Your task to perform on an android device: Clear all items from cart on bestbuy.com. Search for "usb-c" on bestbuy.com, select the first entry, and add it to the cart. Image 0: 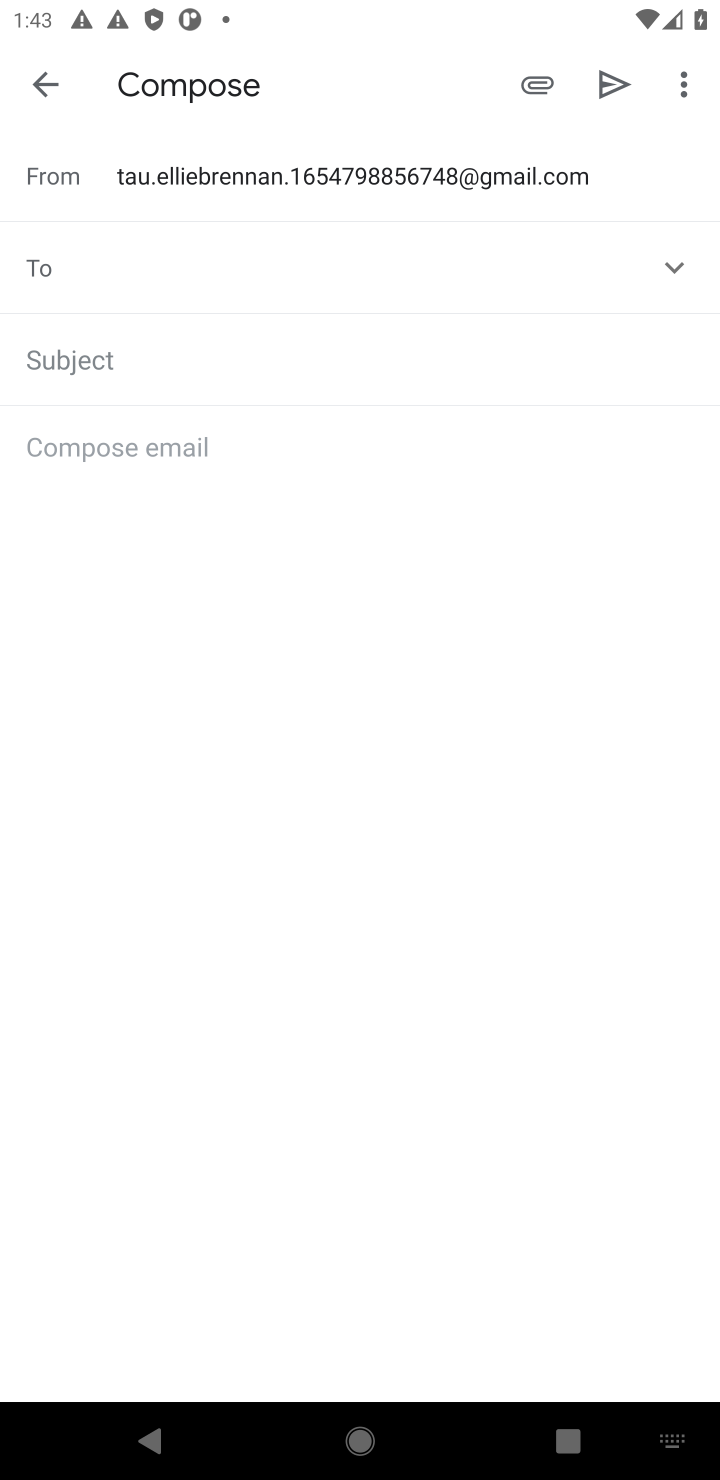
Step 0: press home button
Your task to perform on an android device: Clear all items from cart on bestbuy.com. Search for "usb-c" on bestbuy.com, select the first entry, and add it to the cart. Image 1: 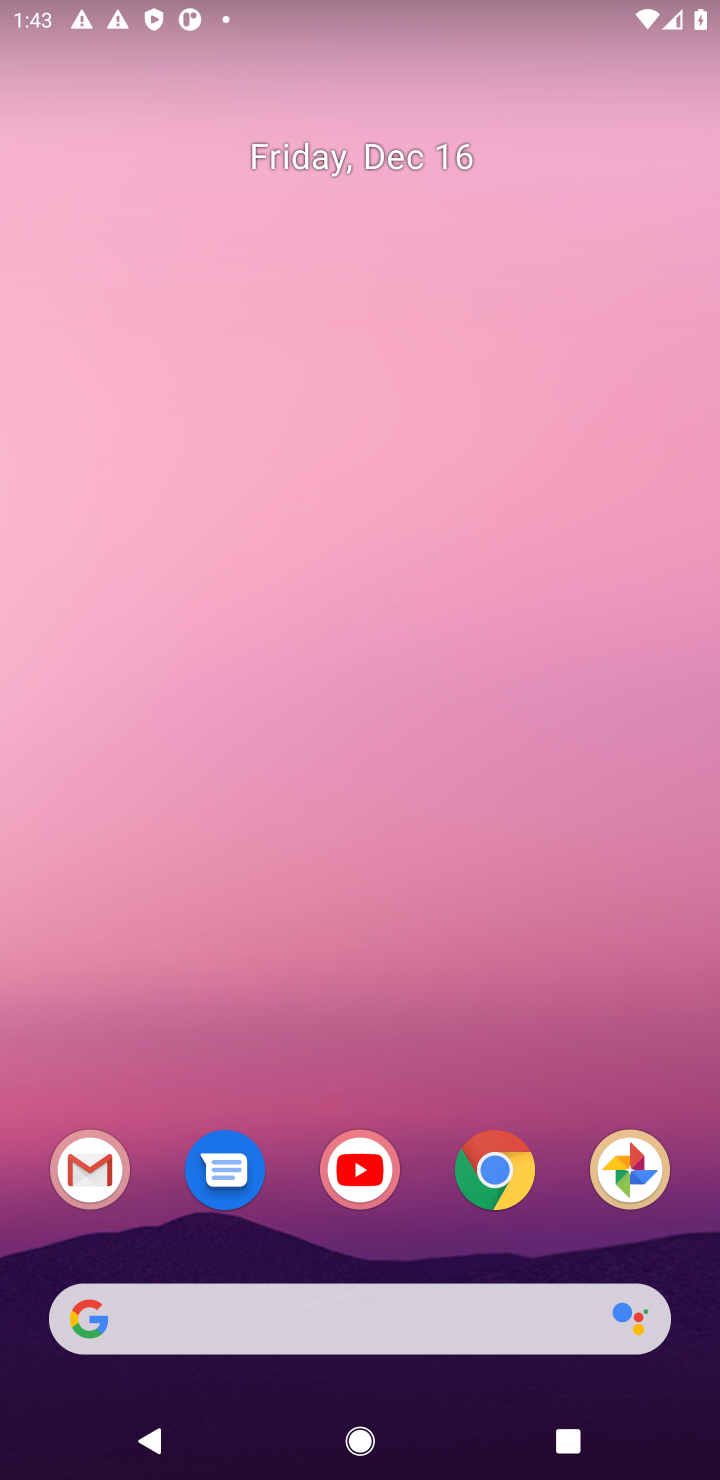
Step 1: click (504, 1185)
Your task to perform on an android device: Clear all items from cart on bestbuy.com. Search for "usb-c" on bestbuy.com, select the first entry, and add it to the cart. Image 2: 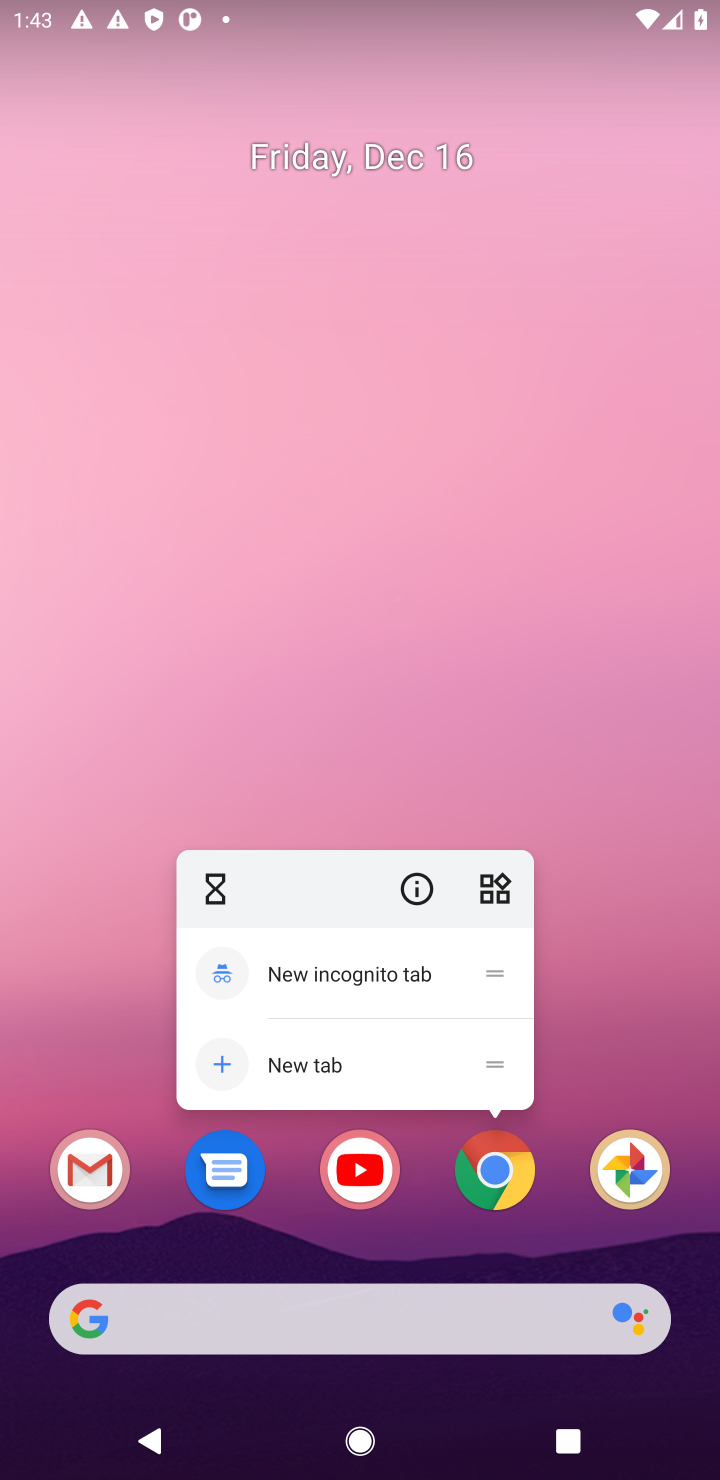
Step 2: click (504, 1185)
Your task to perform on an android device: Clear all items from cart on bestbuy.com. Search for "usb-c" on bestbuy.com, select the first entry, and add it to the cart. Image 3: 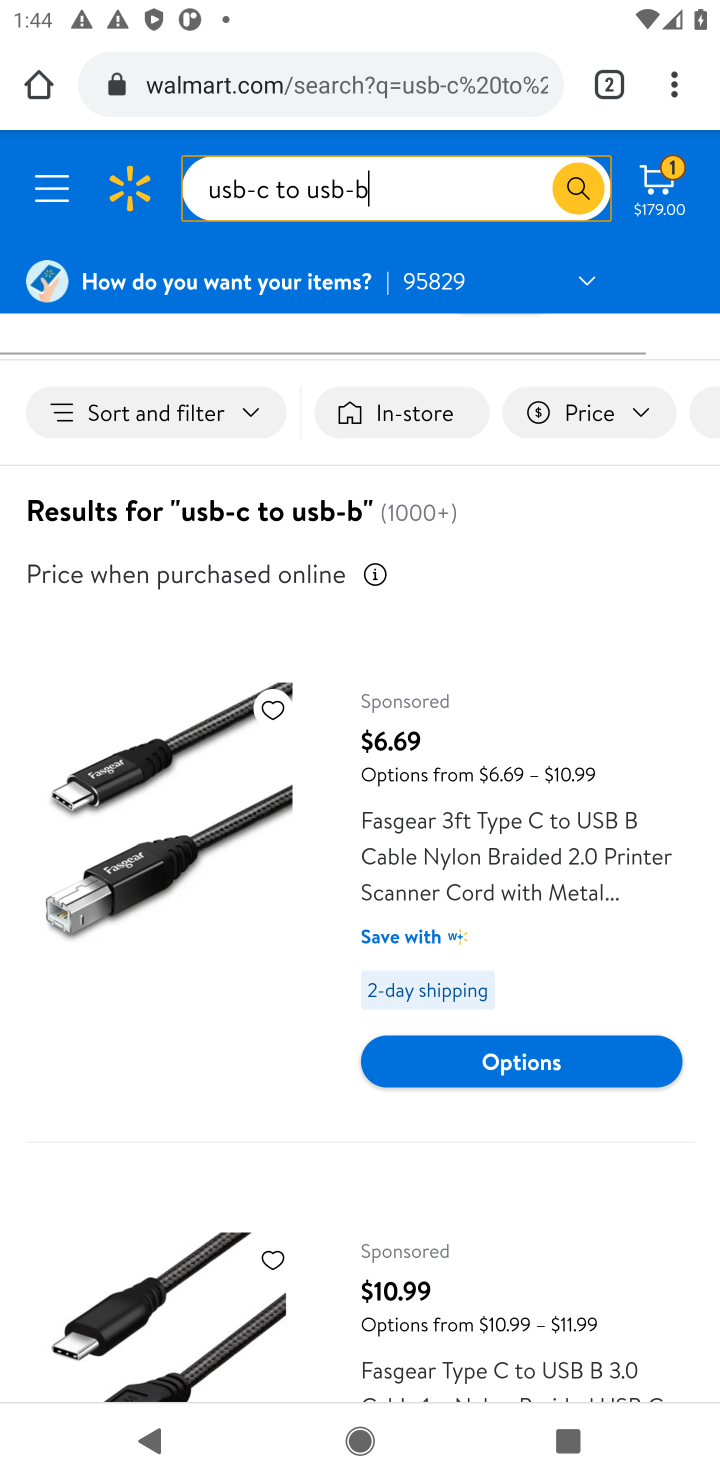
Step 3: click (306, 93)
Your task to perform on an android device: Clear all items from cart on bestbuy.com. Search for "usb-c" on bestbuy.com, select the first entry, and add it to the cart. Image 4: 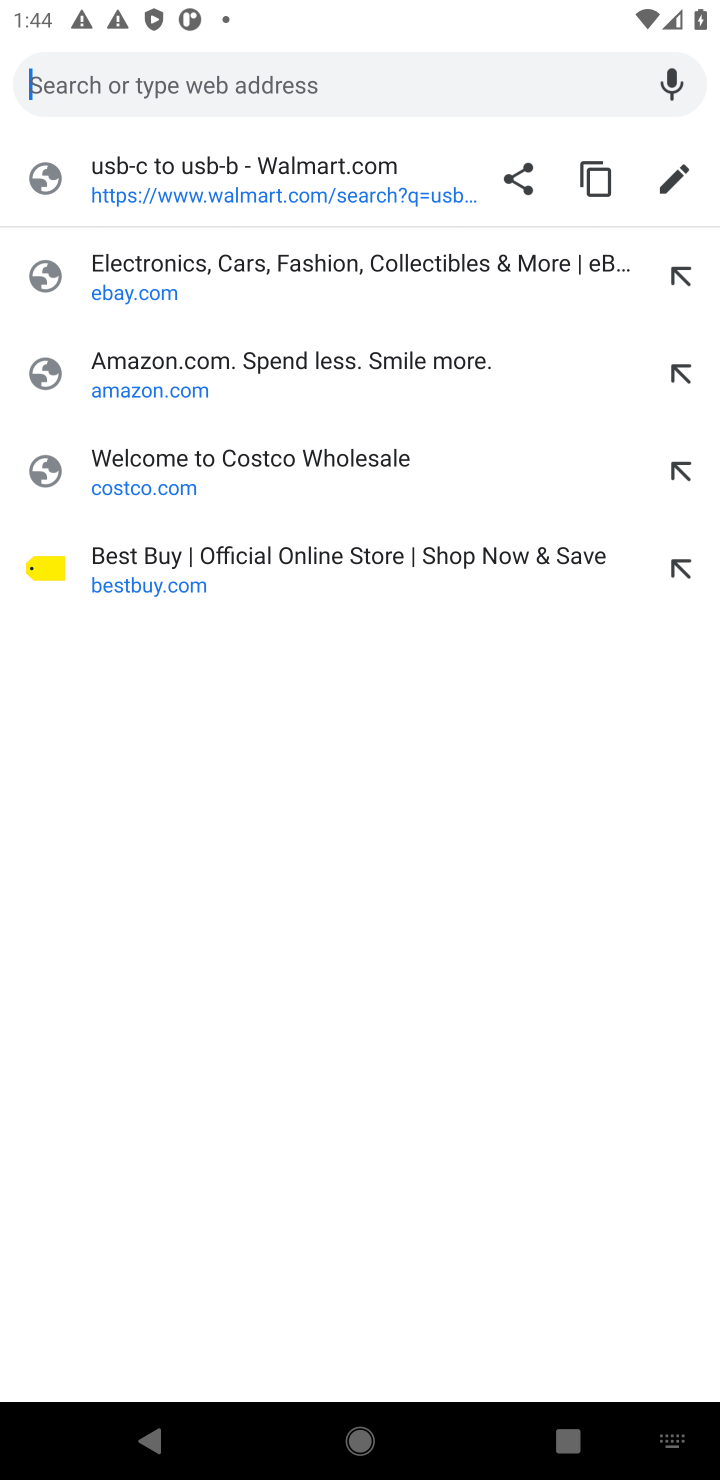
Step 4: click (171, 582)
Your task to perform on an android device: Clear all items from cart on bestbuy.com. Search for "usb-c" on bestbuy.com, select the first entry, and add it to the cart. Image 5: 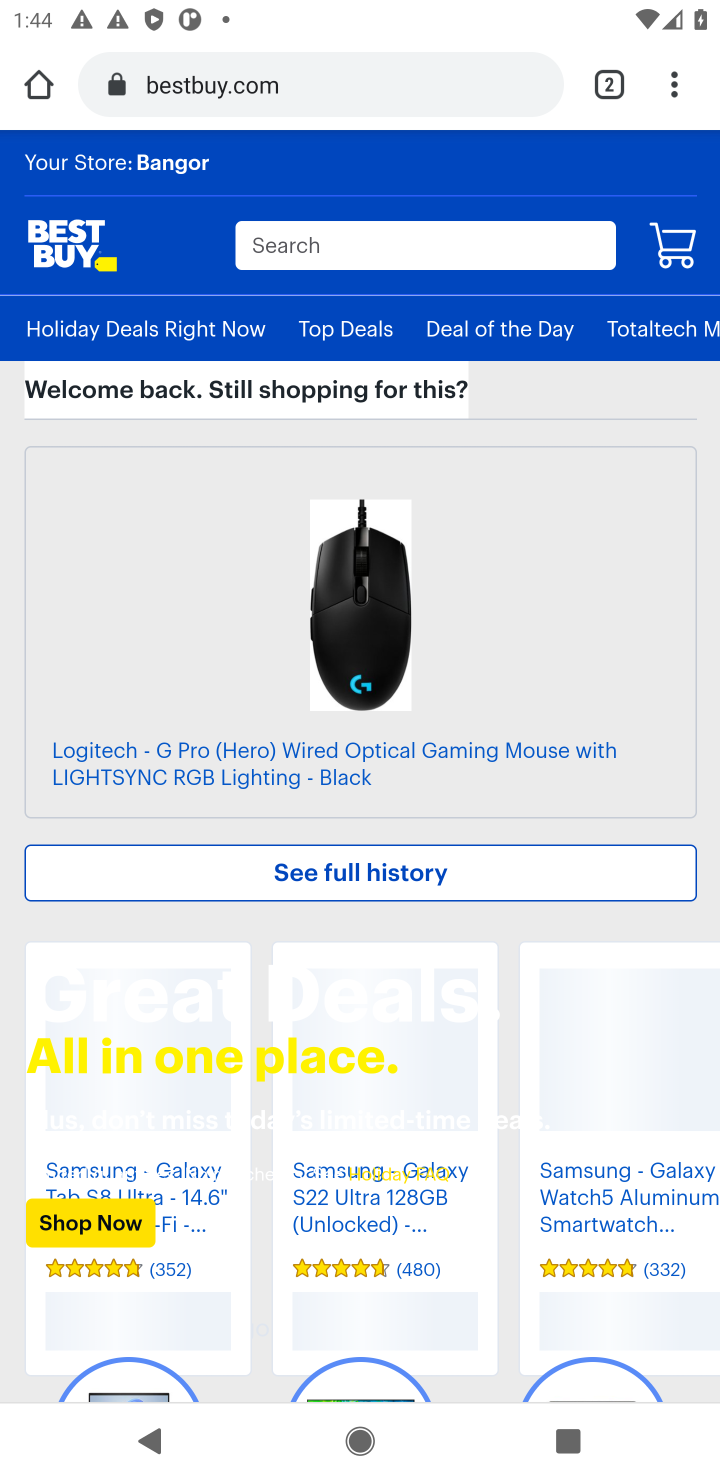
Step 5: click (668, 246)
Your task to perform on an android device: Clear all items from cart on bestbuy.com. Search for "usb-c" on bestbuy.com, select the first entry, and add it to the cart. Image 6: 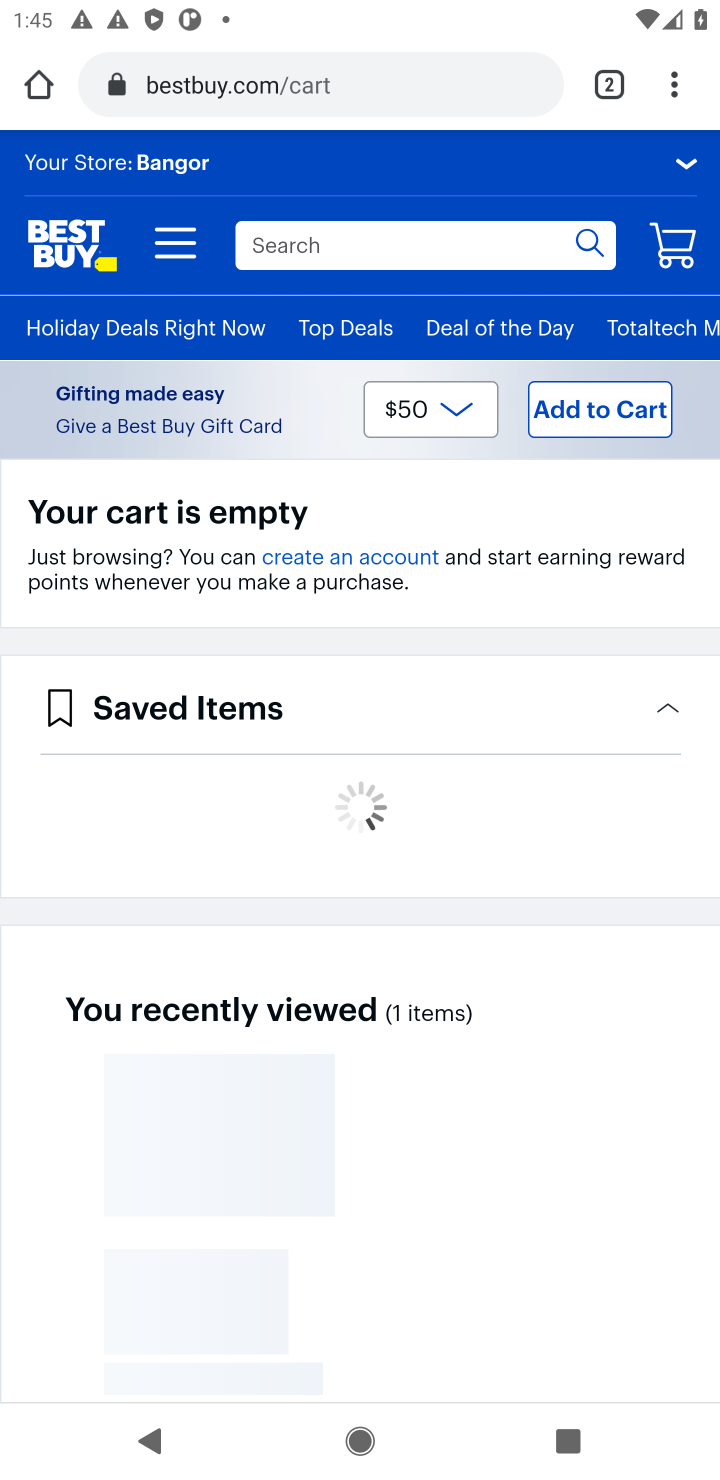
Step 6: click (308, 246)
Your task to perform on an android device: Clear all items from cart on bestbuy.com. Search for "usb-c" on bestbuy.com, select the first entry, and add it to the cart. Image 7: 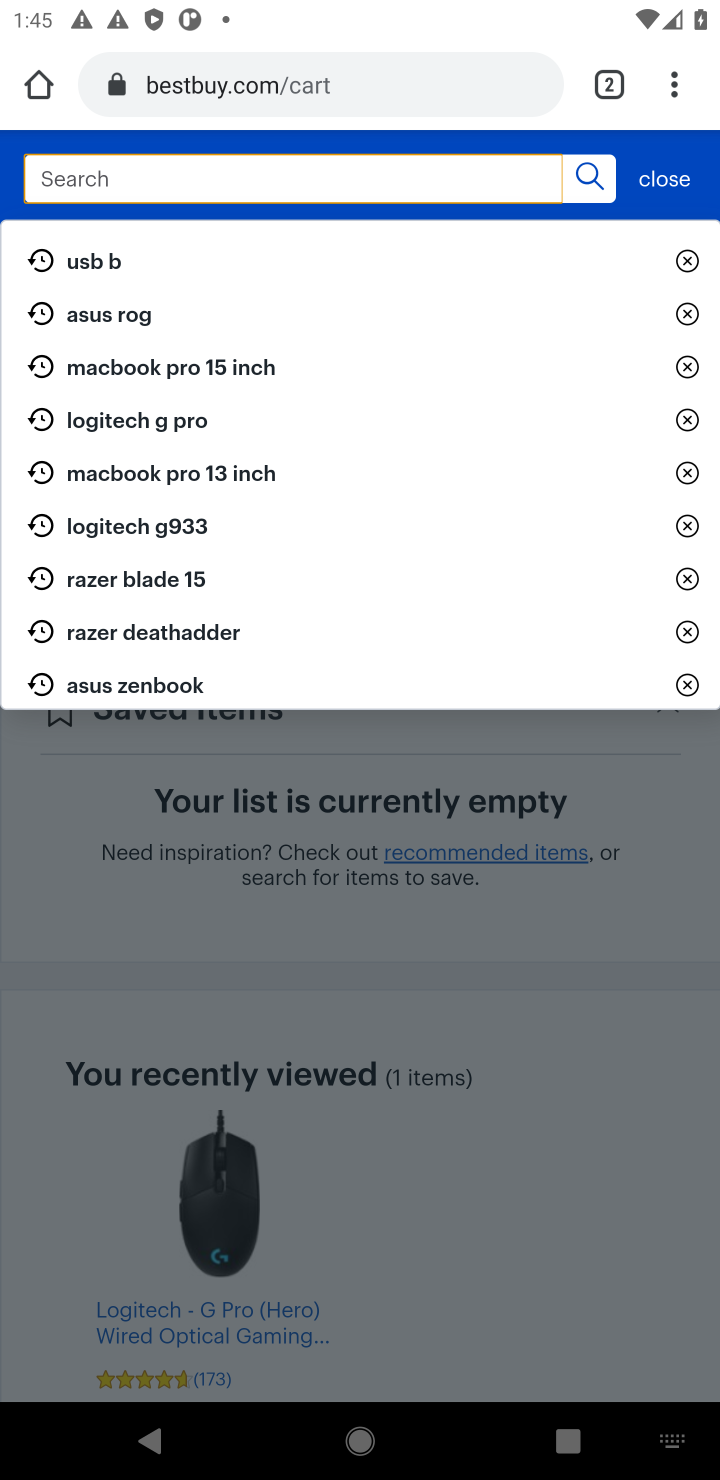
Step 7: type "usb-c"
Your task to perform on an android device: Clear all items from cart on bestbuy.com. Search for "usb-c" on bestbuy.com, select the first entry, and add it to the cart. Image 8: 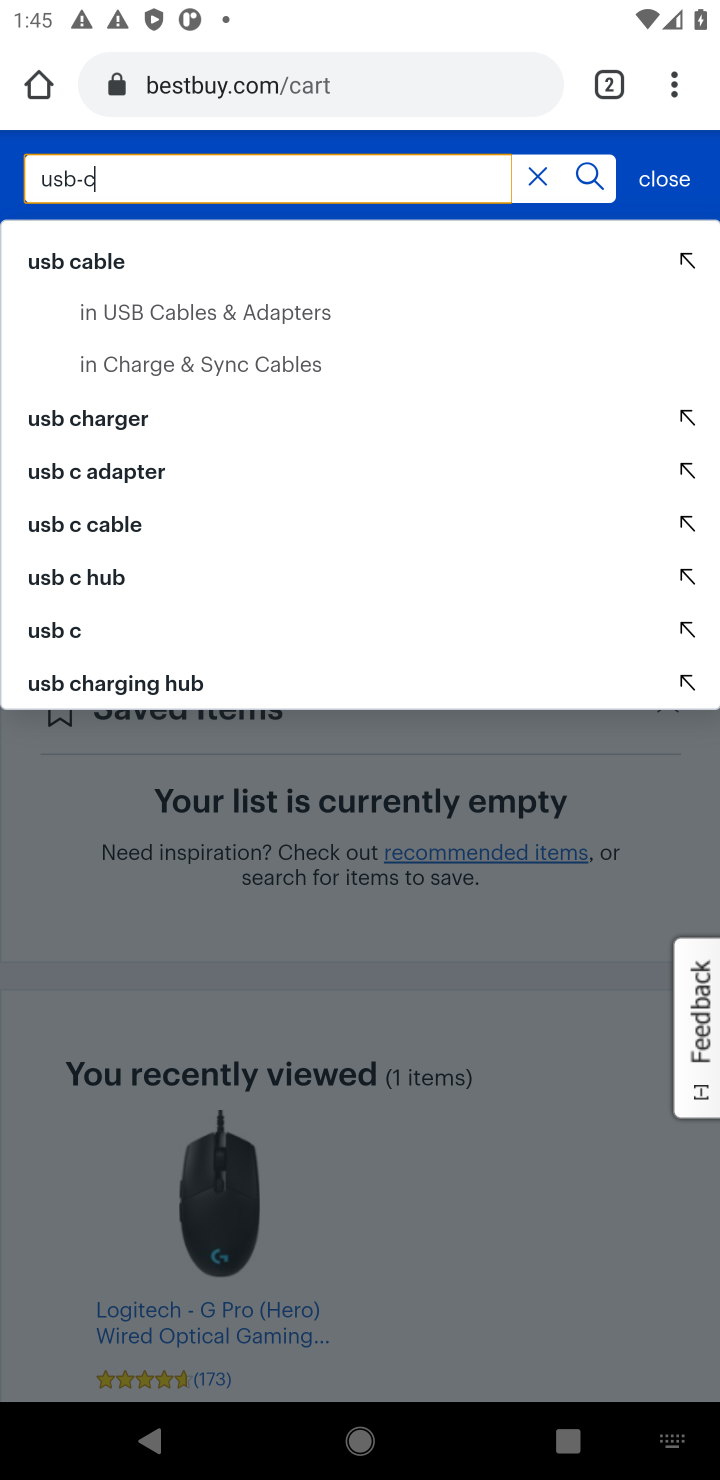
Step 8: click (30, 639)
Your task to perform on an android device: Clear all items from cart on bestbuy.com. Search for "usb-c" on bestbuy.com, select the first entry, and add it to the cart. Image 9: 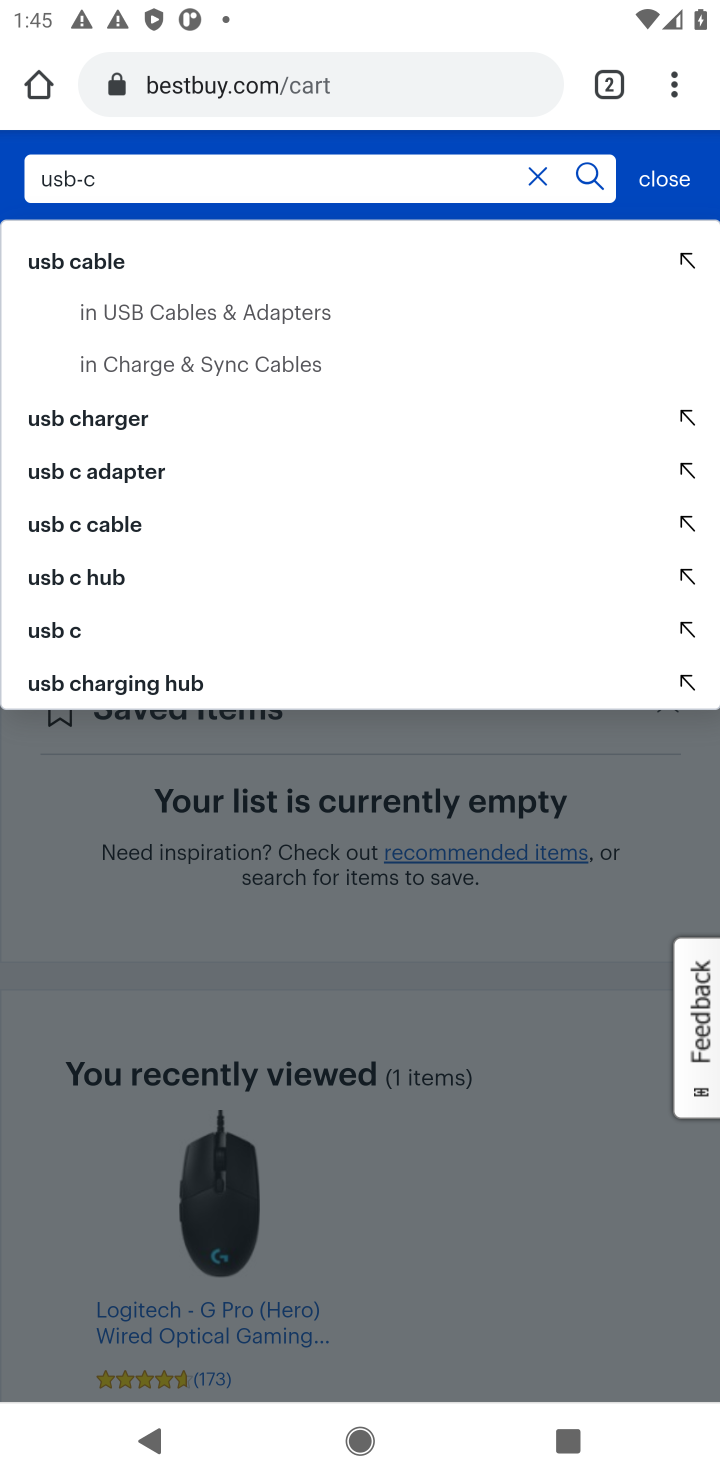
Step 9: click (588, 176)
Your task to perform on an android device: Clear all items from cart on bestbuy.com. Search for "usb-c" on bestbuy.com, select the first entry, and add it to the cart. Image 10: 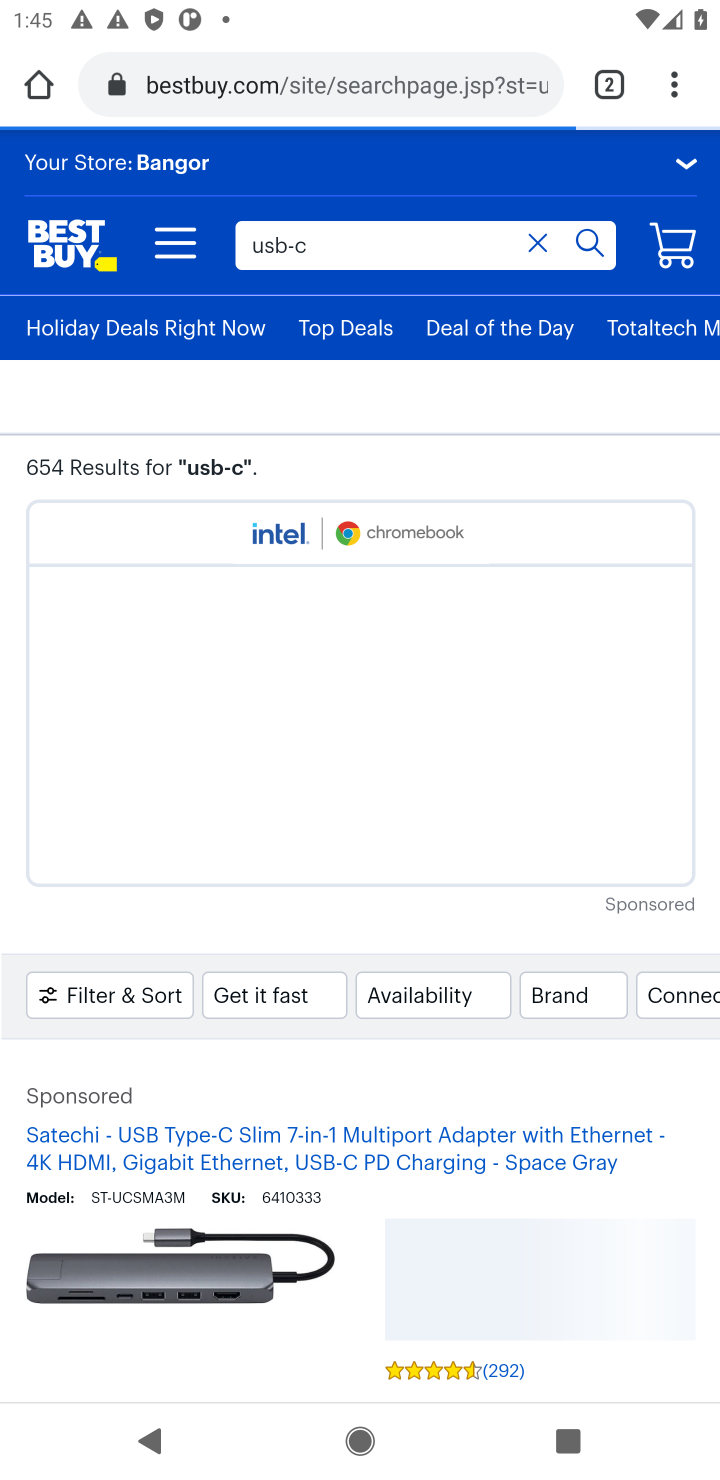
Step 10: drag from (239, 1060) to (285, 615)
Your task to perform on an android device: Clear all items from cart on bestbuy.com. Search for "usb-c" on bestbuy.com, select the first entry, and add it to the cart. Image 11: 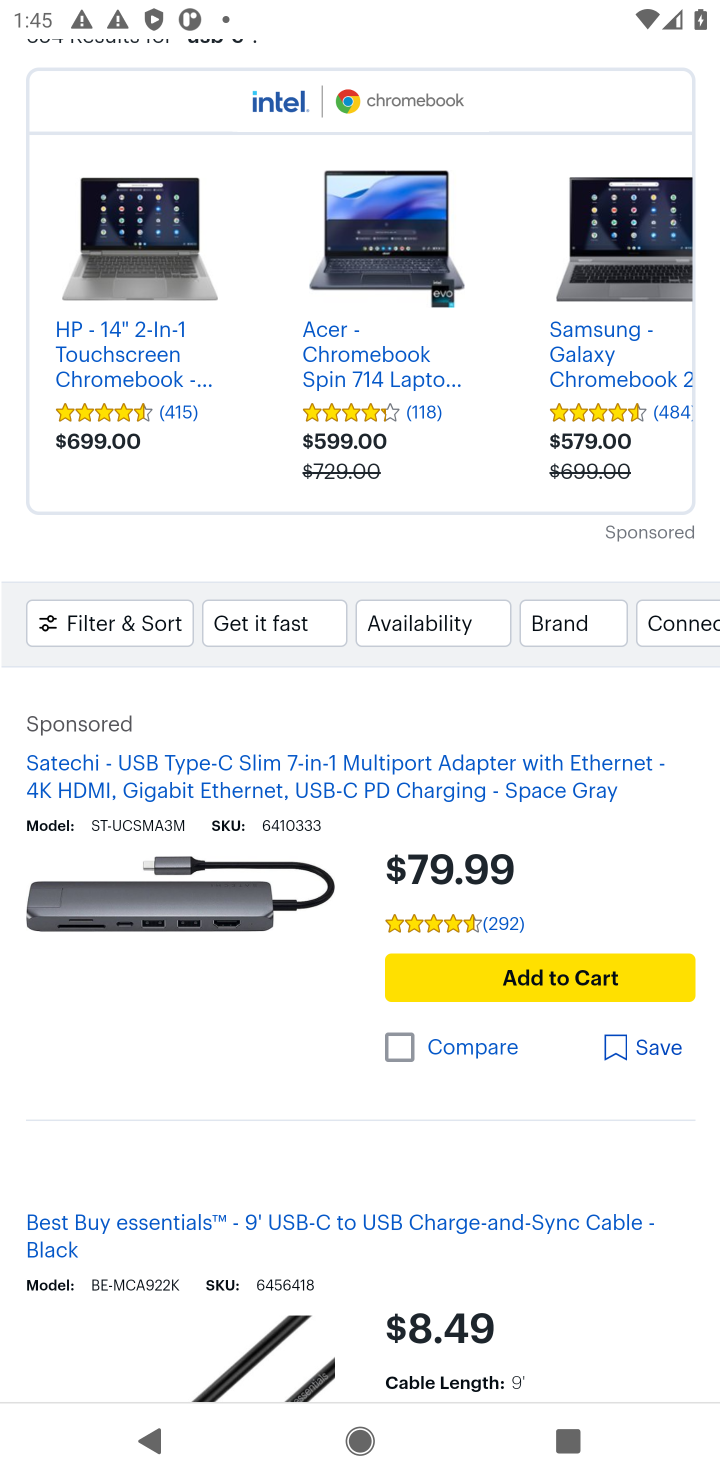
Step 11: click (451, 982)
Your task to perform on an android device: Clear all items from cart on bestbuy.com. Search for "usb-c" on bestbuy.com, select the first entry, and add it to the cart. Image 12: 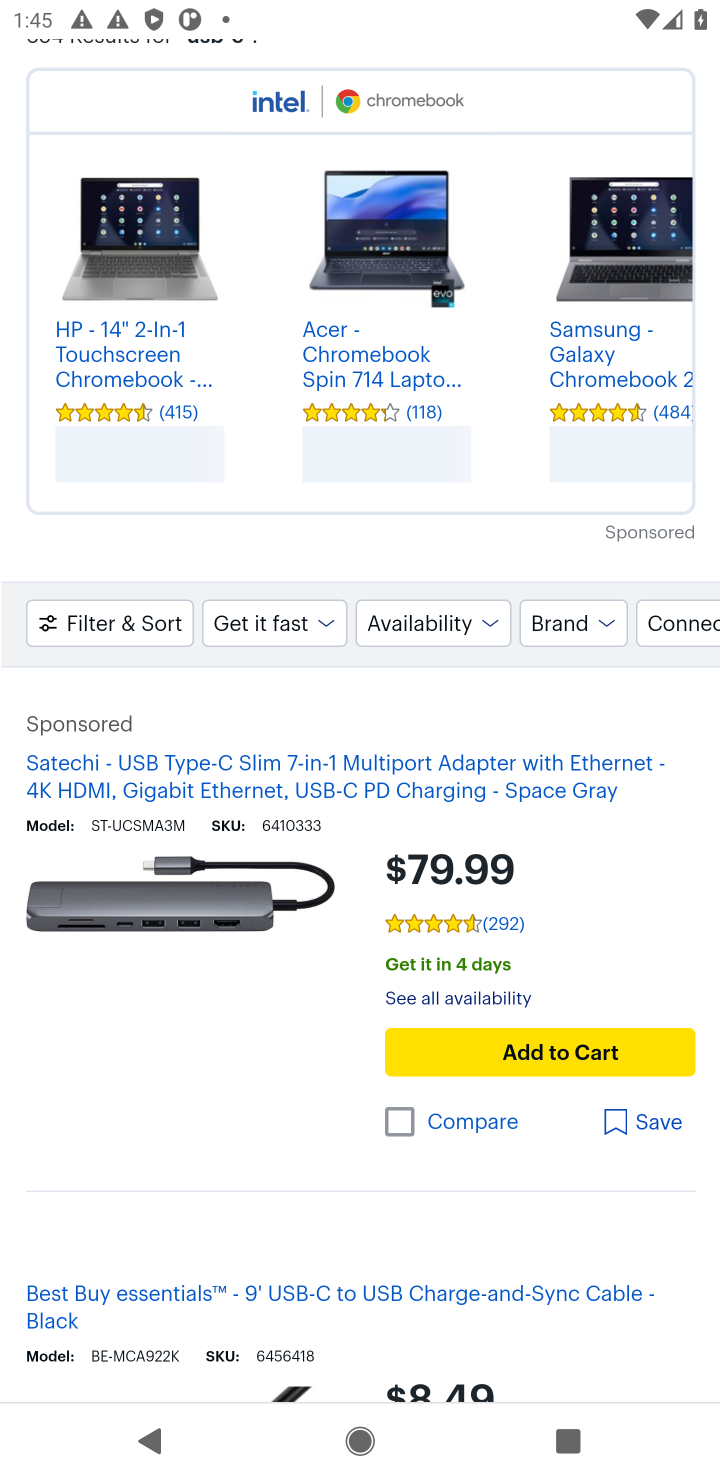
Step 12: click (462, 1049)
Your task to perform on an android device: Clear all items from cart on bestbuy.com. Search for "usb-c" on bestbuy.com, select the first entry, and add it to the cart. Image 13: 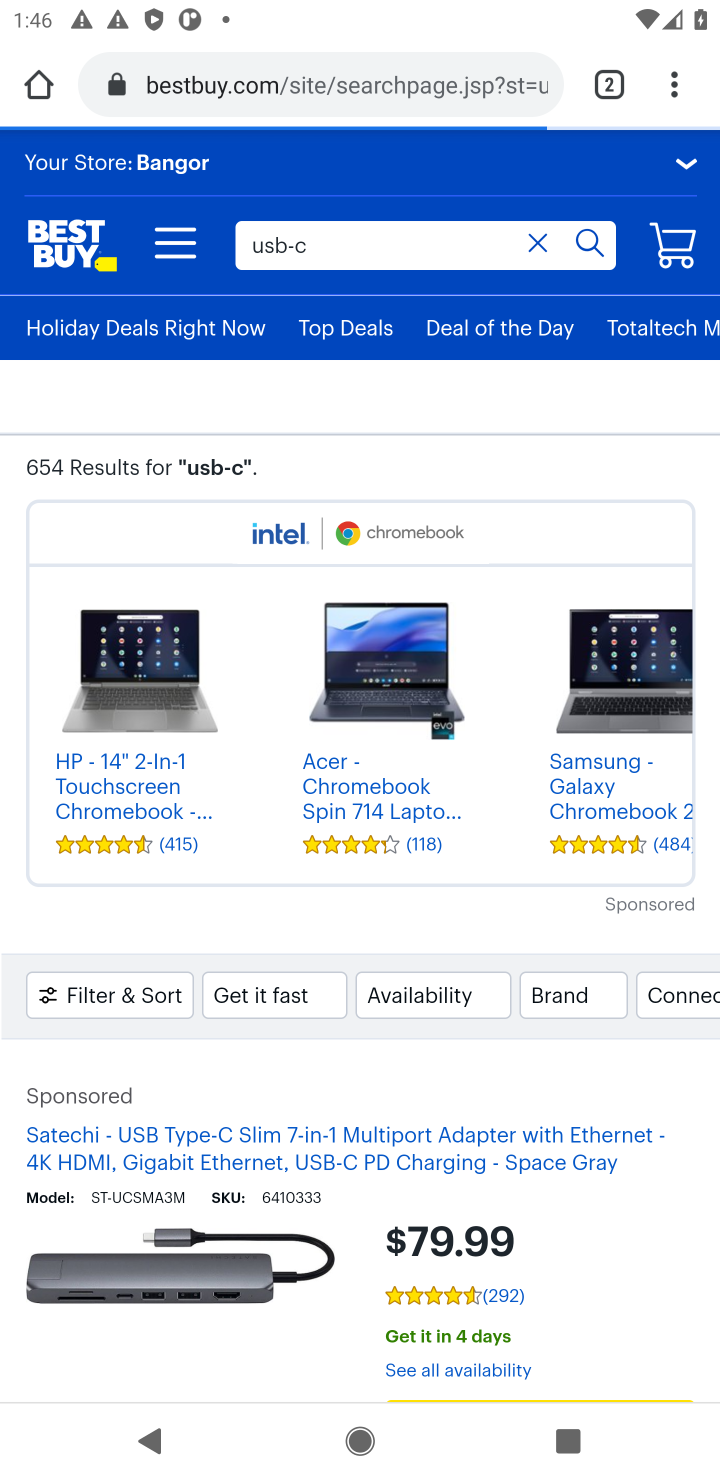
Step 13: drag from (255, 1177) to (263, 609)
Your task to perform on an android device: Clear all items from cart on bestbuy.com. Search for "usb-c" on bestbuy.com, select the first entry, and add it to the cart. Image 14: 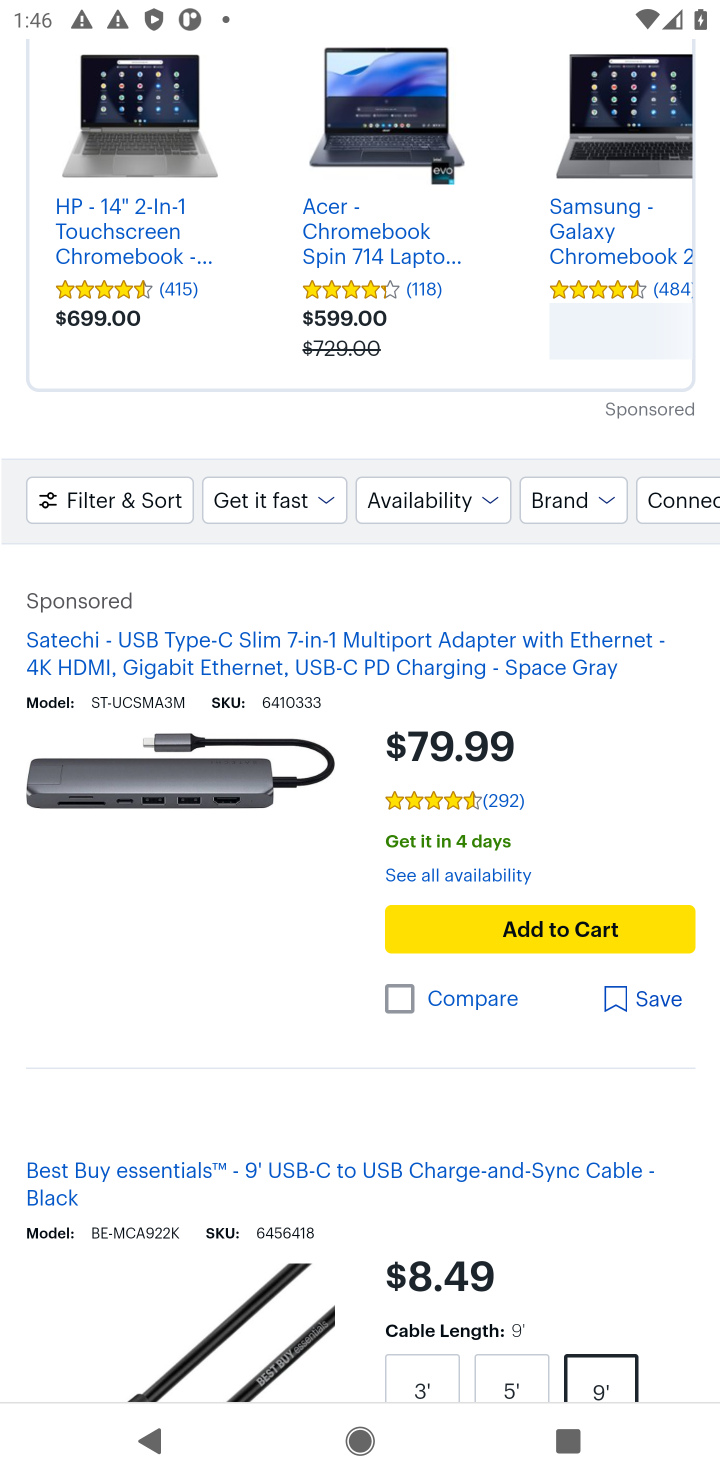
Step 14: click (458, 931)
Your task to perform on an android device: Clear all items from cart on bestbuy.com. Search for "usb-c" on bestbuy.com, select the first entry, and add it to the cart. Image 15: 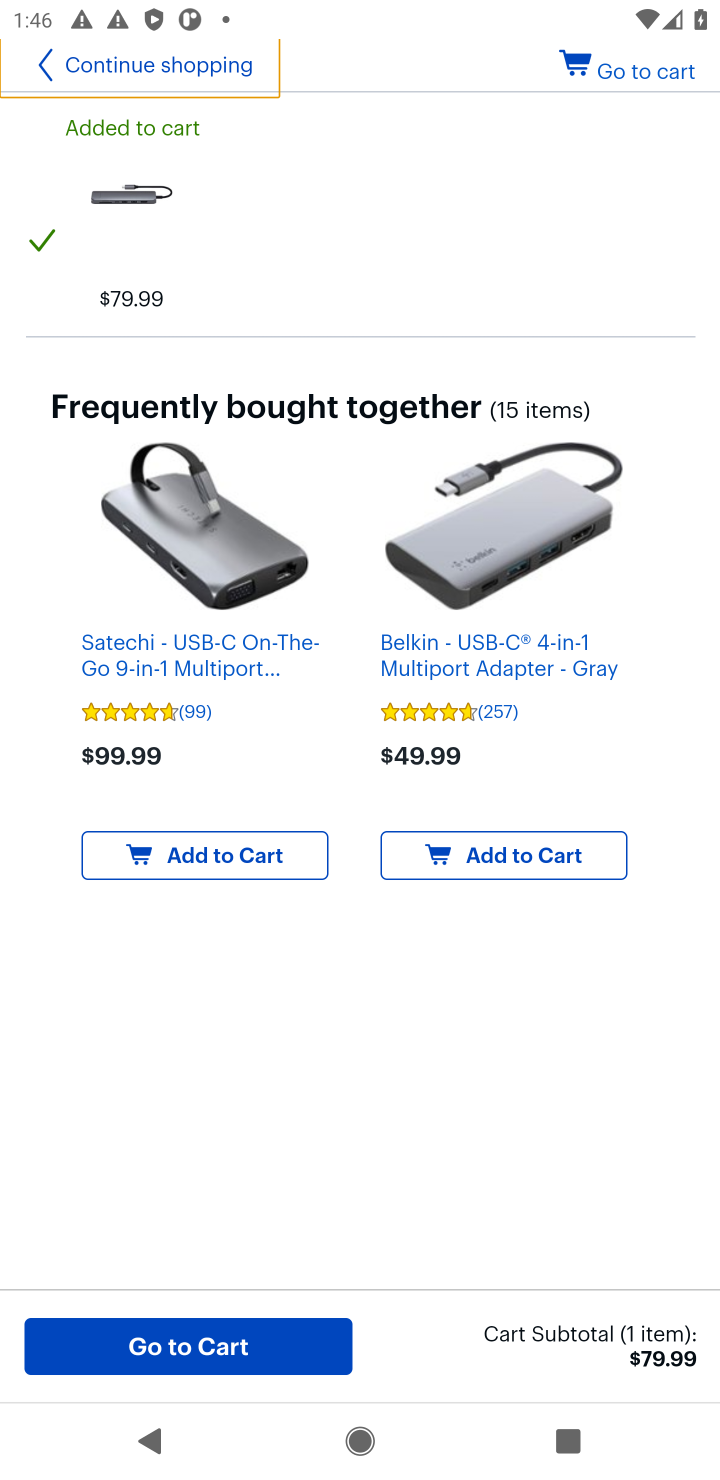
Step 15: task complete